Your task to perform on an android device: turn off notifications in google photos Image 0: 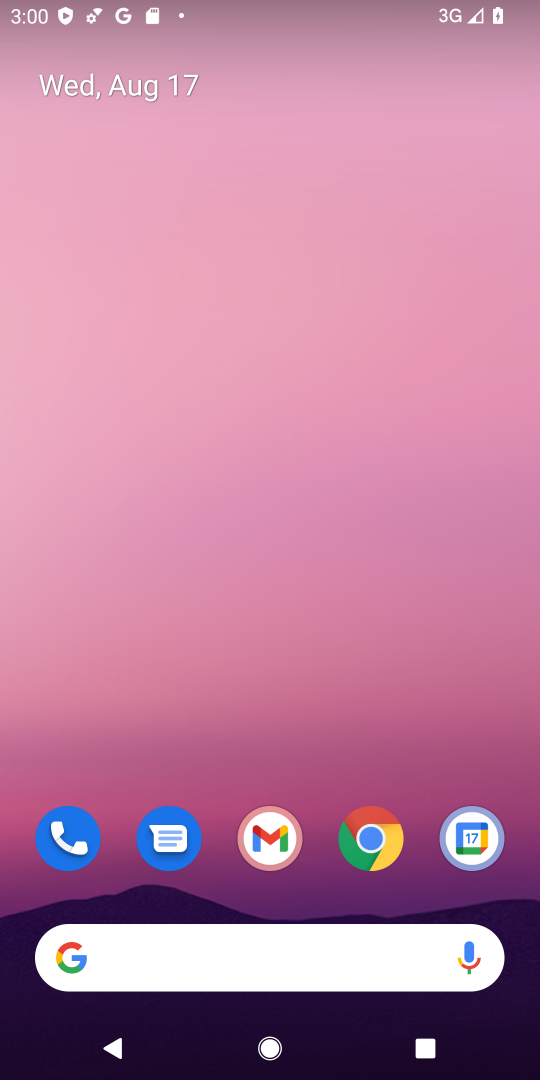
Step 0: drag from (313, 893) to (377, 100)
Your task to perform on an android device: turn off notifications in google photos Image 1: 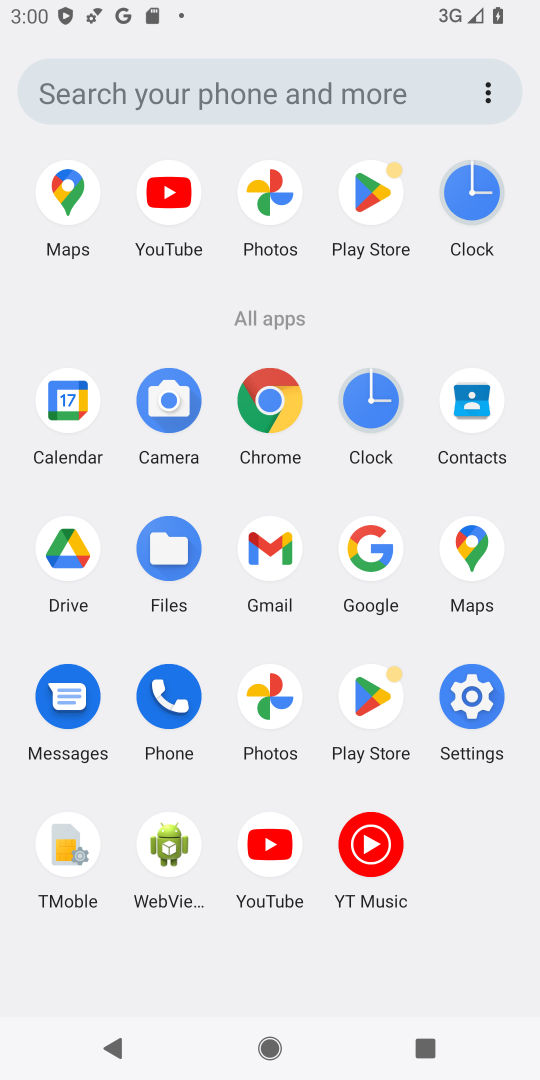
Step 1: click (254, 178)
Your task to perform on an android device: turn off notifications in google photos Image 2: 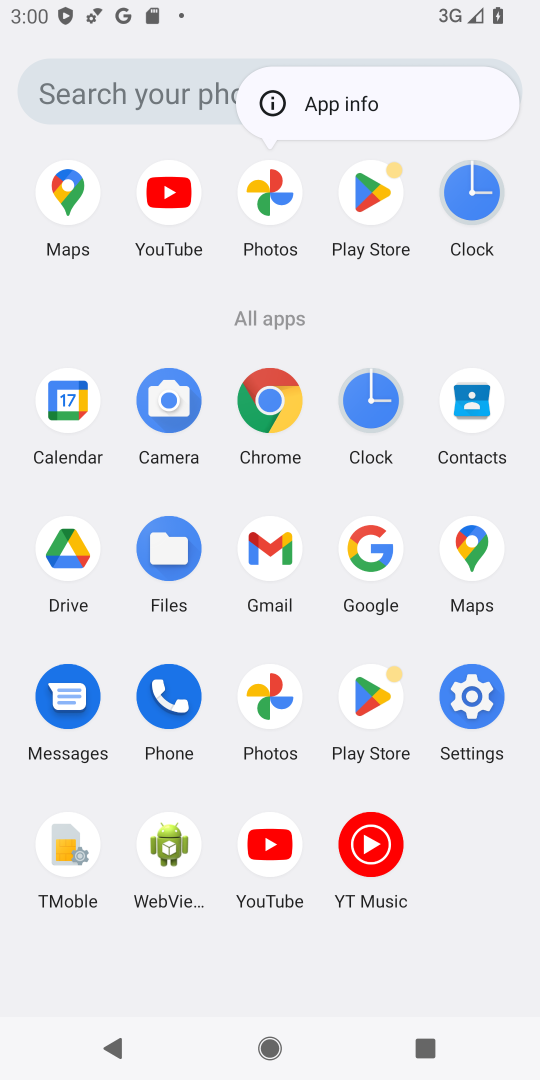
Step 2: click (272, 99)
Your task to perform on an android device: turn off notifications in google photos Image 3: 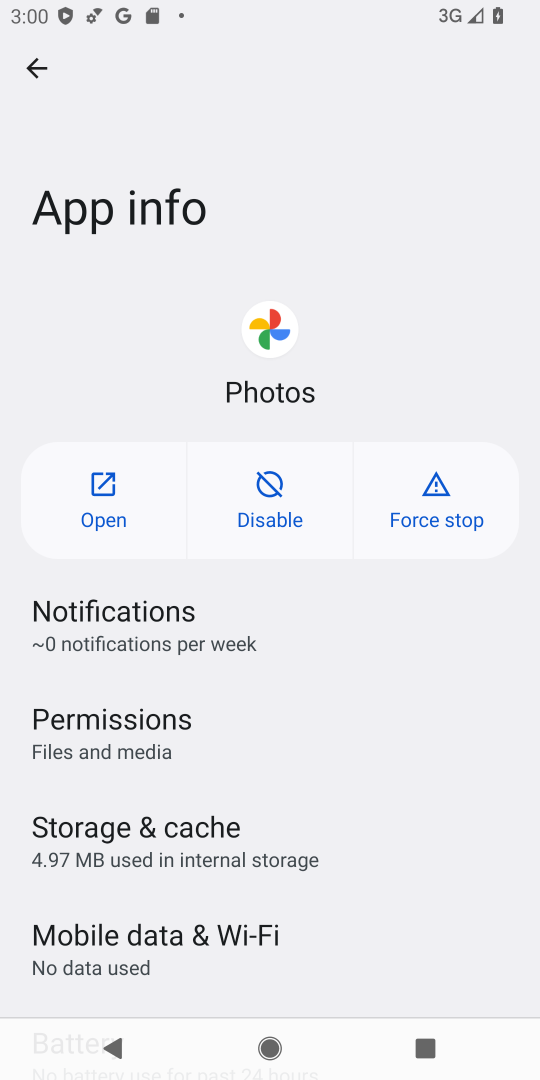
Step 3: click (132, 621)
Your task to perform on an android device: turn off notifications in google photos Image 4: 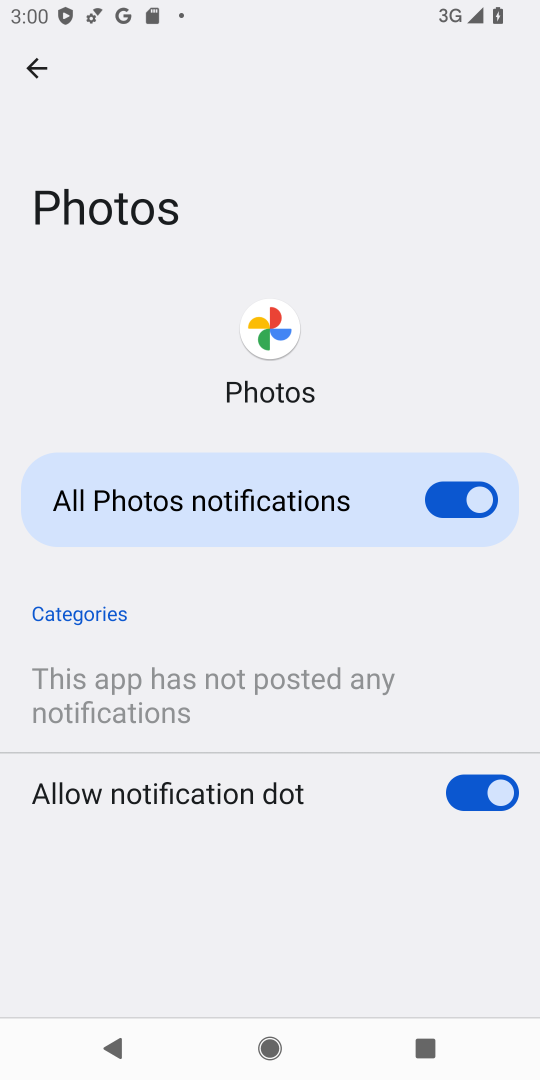
Step 4: click (464, 493)
Your task to perform on an android device: turn off notifications in google photos Image 5: 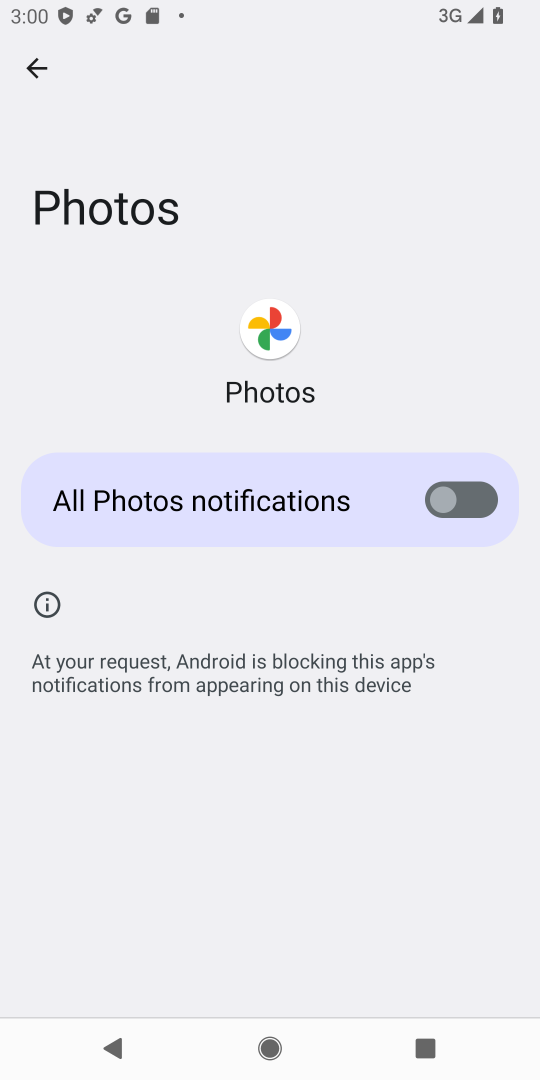
Step 5: task complete